Your task to perform on an android device: turn off picture-in-picture Image 0: 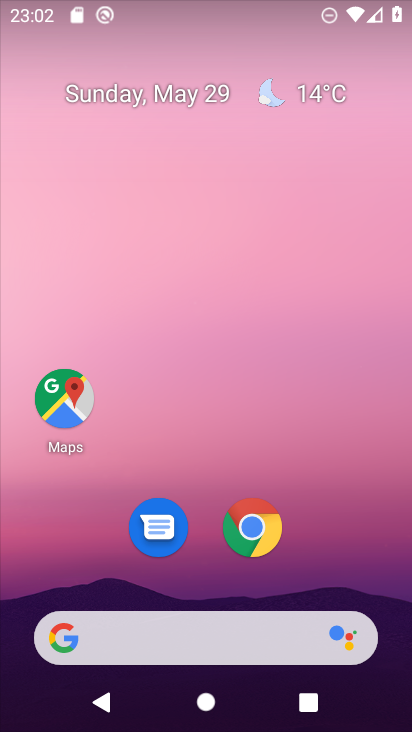
Step 0: press home button
Your task to perform on an android device: turn off picture-in-picture Image 1: 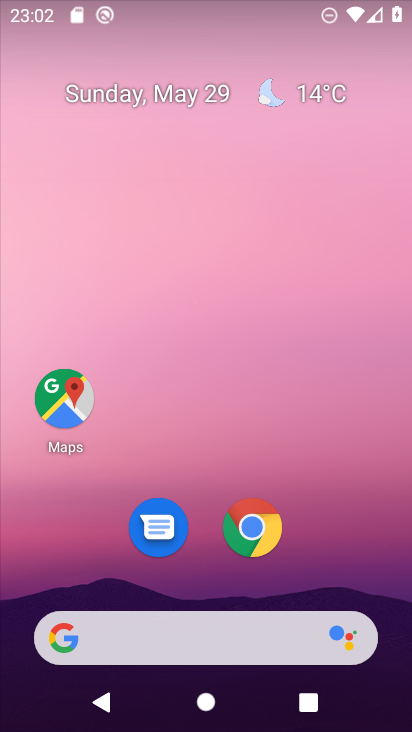
Step 1: click (261, 518)
Your task to perform on an android device: turn off picture-in-picture Image 2: 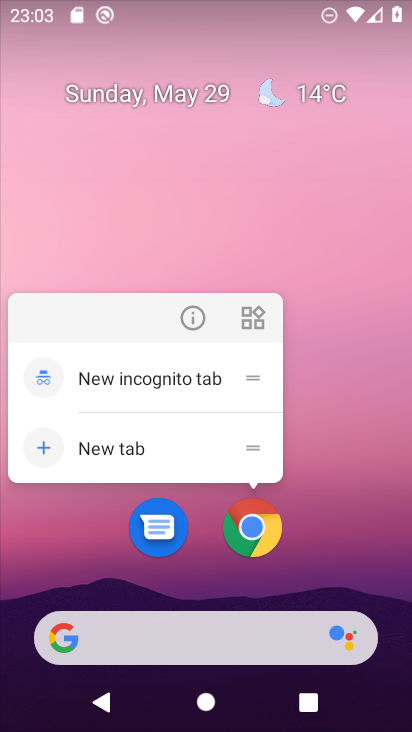
Step 2: click (194, 321)
Your task to perform on an android device: turn off picture-in-picture Image 3: 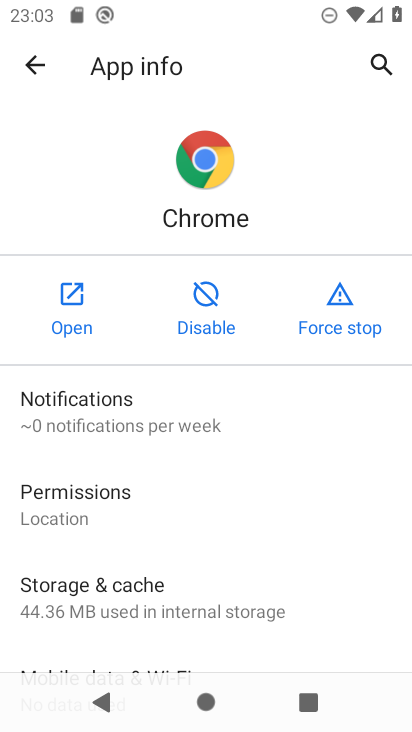
Step 3: drag from (214, 657) to (267, 157)
Your task to perform on an android device: turn off picture-in-picture Image 4: 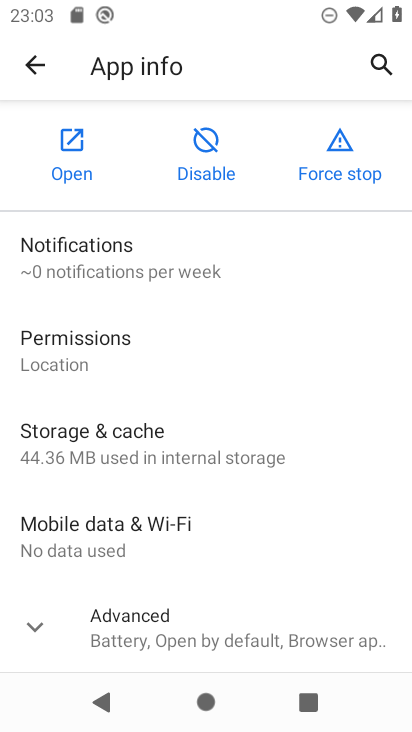
Step 4: click (133, 620)
Your task to perform on an android device: turn off picture-in-picture Image 5: 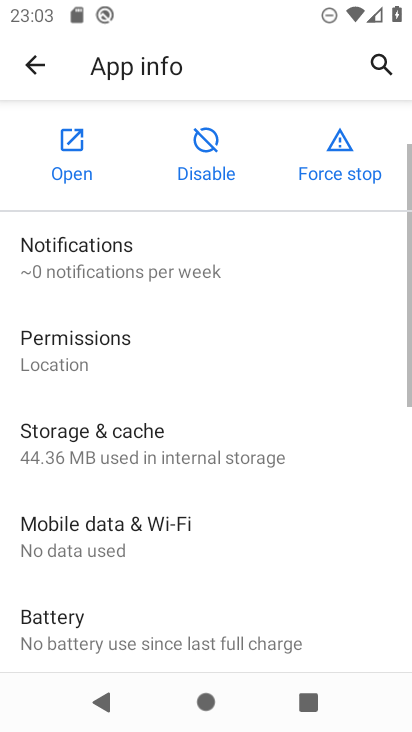
Step 5: drag from (194, 564) to (214, 60)
Your task to perform on an android device: turn off picture-in-picture Image 6: 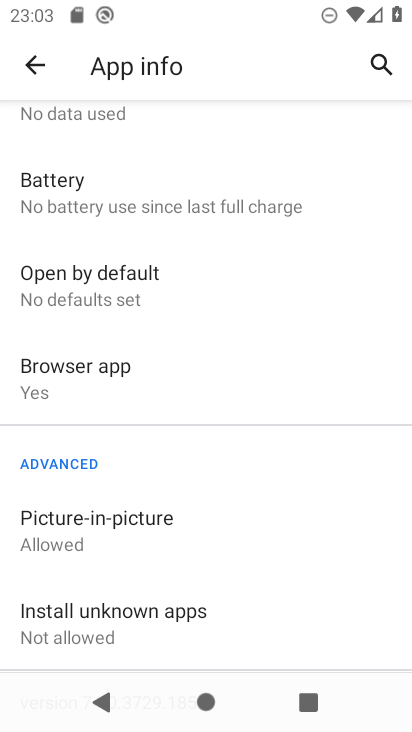
Step 6: click (78, 631)
Your task to perform on an android device: turn off picture-in-picture Image 7: 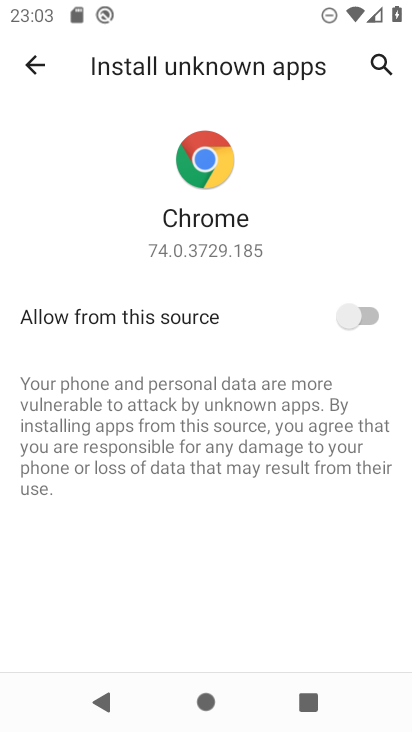
Step 7: click (55, 82)
Your task to perform on an android device: turn off picture-in-picture Image 8: 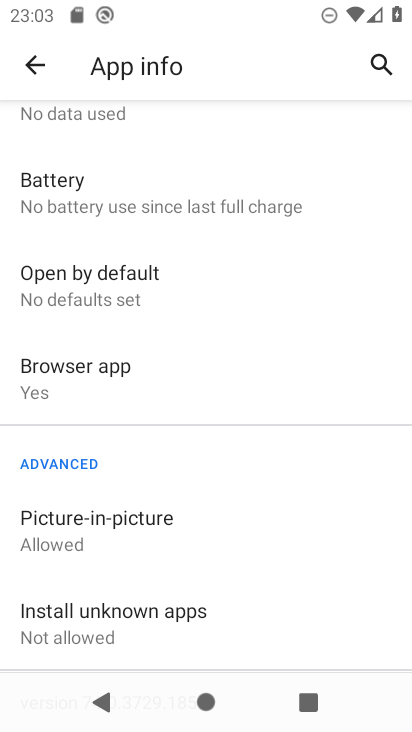
Step 8: click (120, 529)
Your task to perform on an android device: turn off picture-in-picture Image 9: 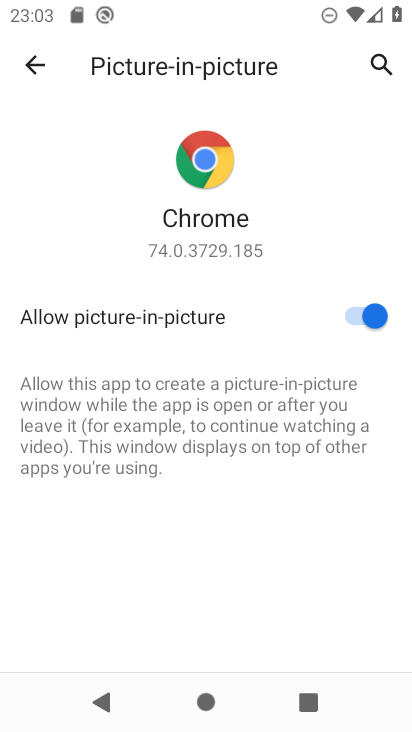
Step 9: click (357, 312)
Your task to perform on an android device: turn off picture-in-picture Image 10: 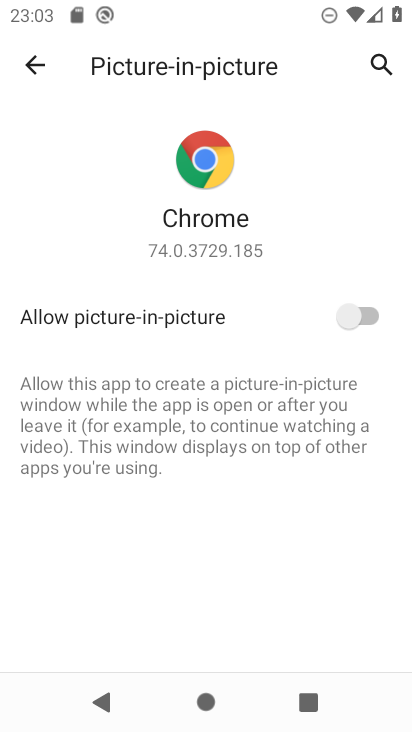
Step 10: task complete